Your task to perform on an android device: move a message to another label in the gmail app Image 0: 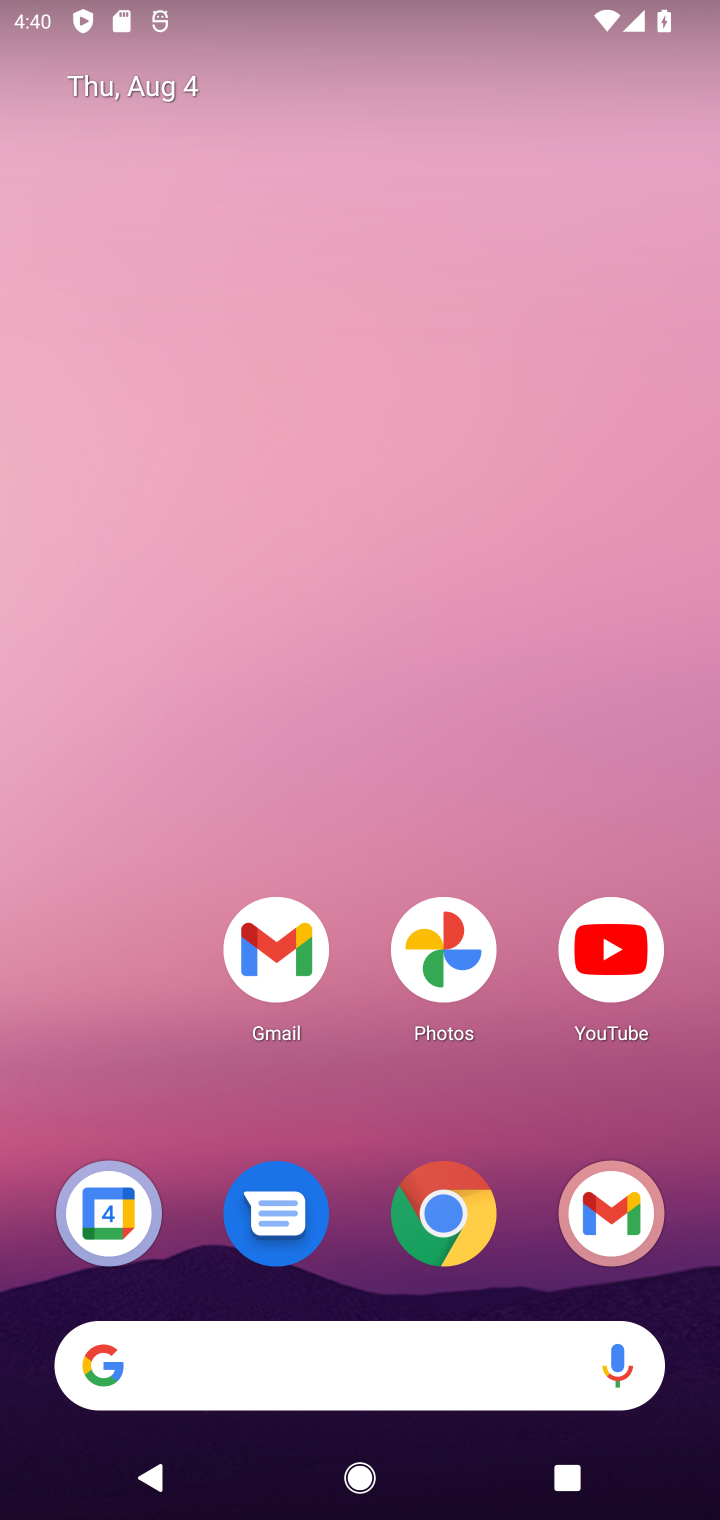
Step 0: drag from (170, 1118) to (179, 321)
Your task to perform on an android device: move a message to another label in the gmail app Image 1: 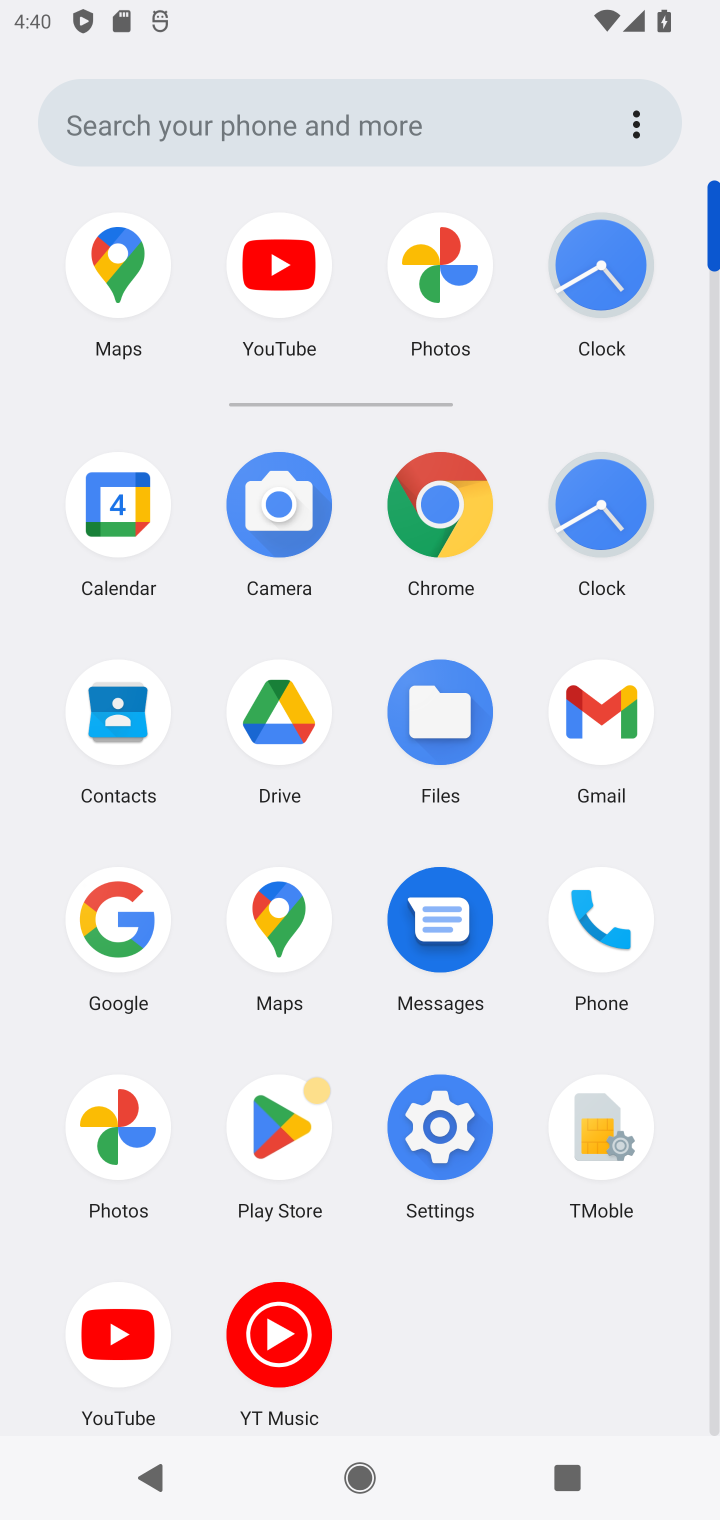
Step 1: click (613, 712)
Your task to perform on an android device: move a message to another label in the gmail app Image 2: 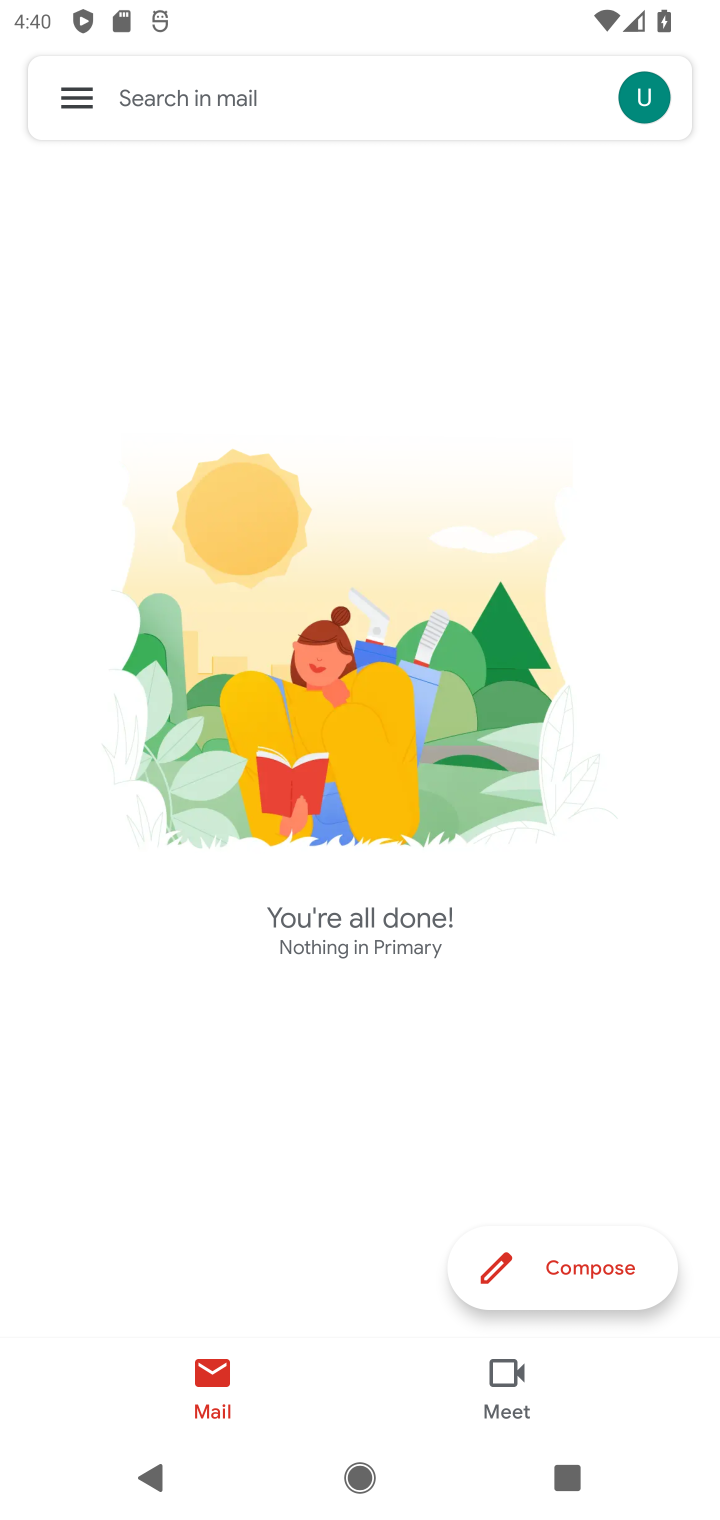
Step 2: click (84, 101)
Your task to perform on an android device: move a message to another label in the gmail app Image 3: 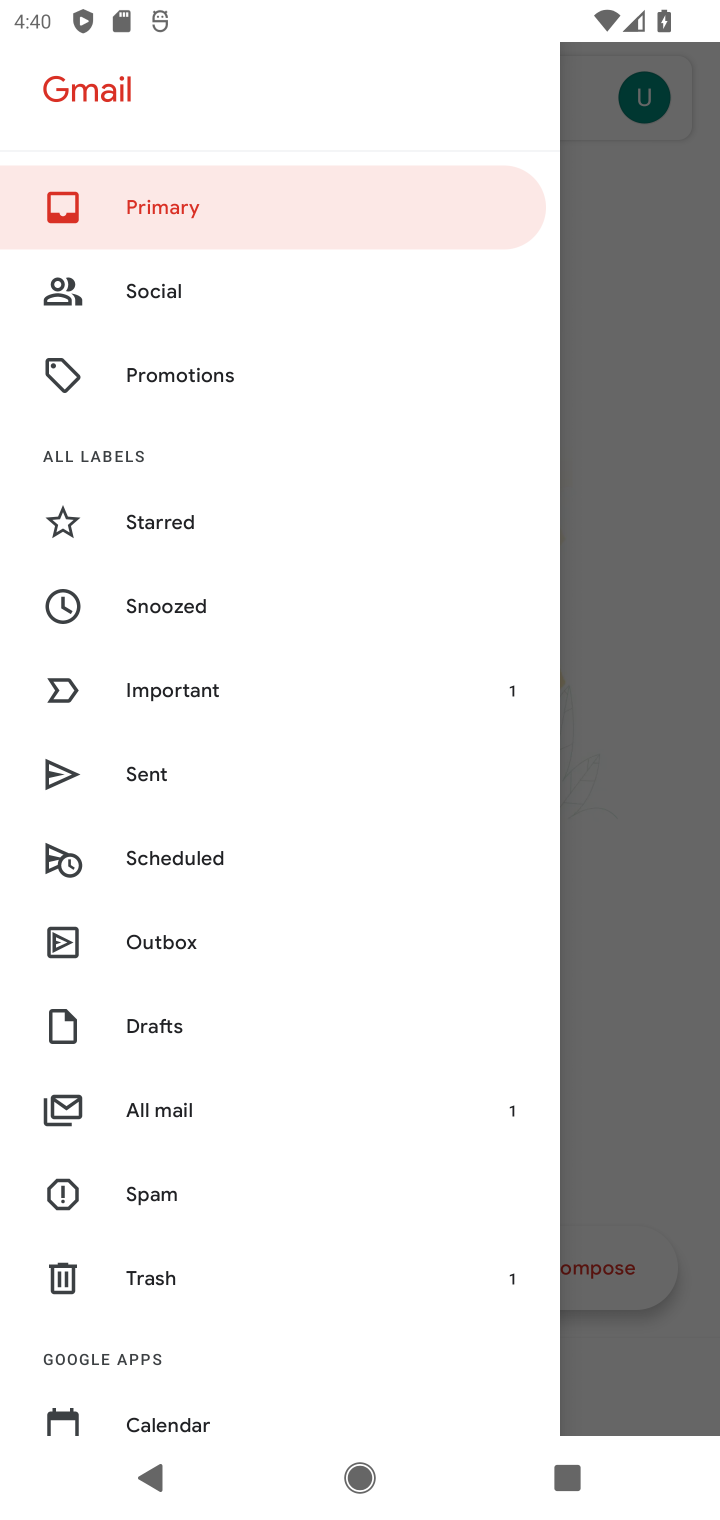
Step 3: click (250, 1104)
Your task to perform on an android device: move a message to another label in the gmail app Image 4: 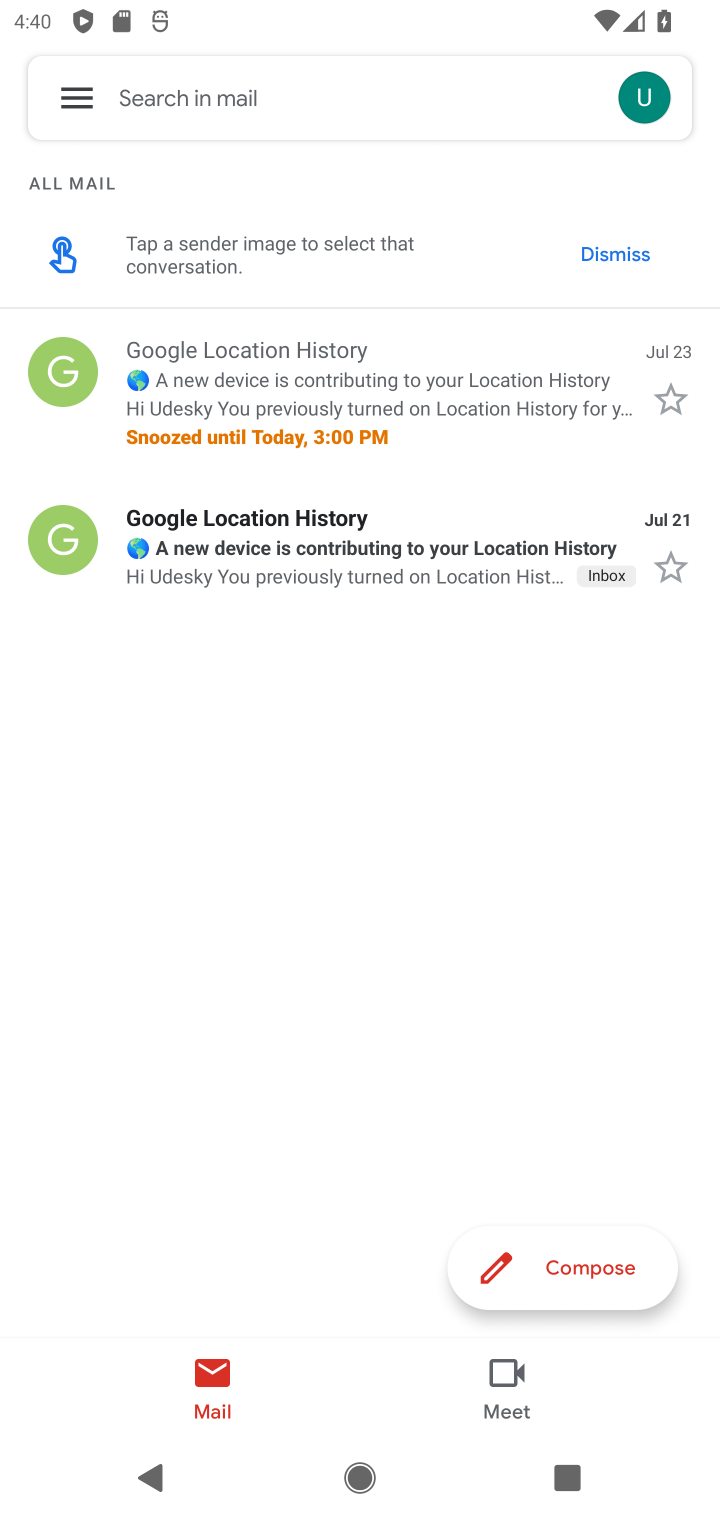
Step 4: click (393, 562)
Your task to perform on an android device: move a message to another label in the gmail app Image 5: 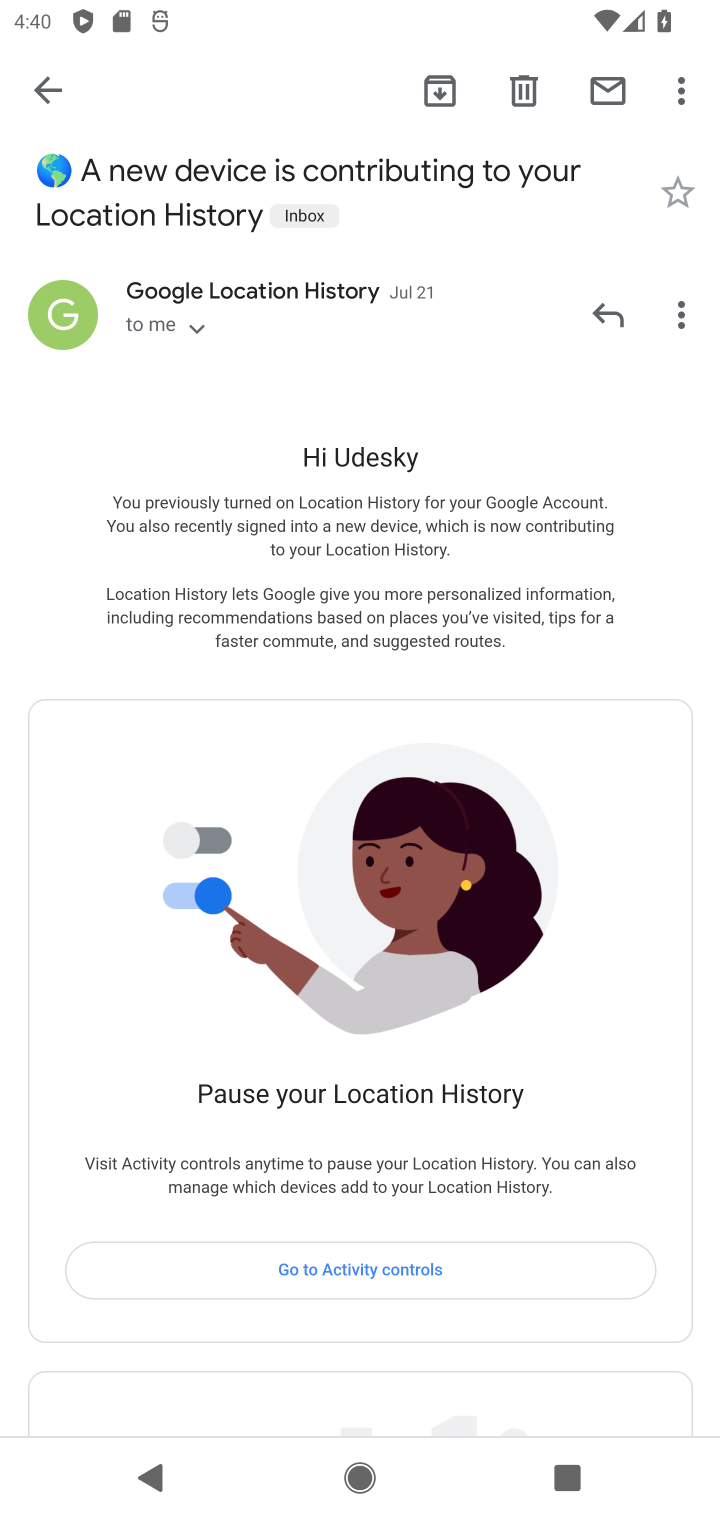
Step 5: click (684, 103)
Your task to perform on an android device: move a message to another label in the gmail app Image 6: 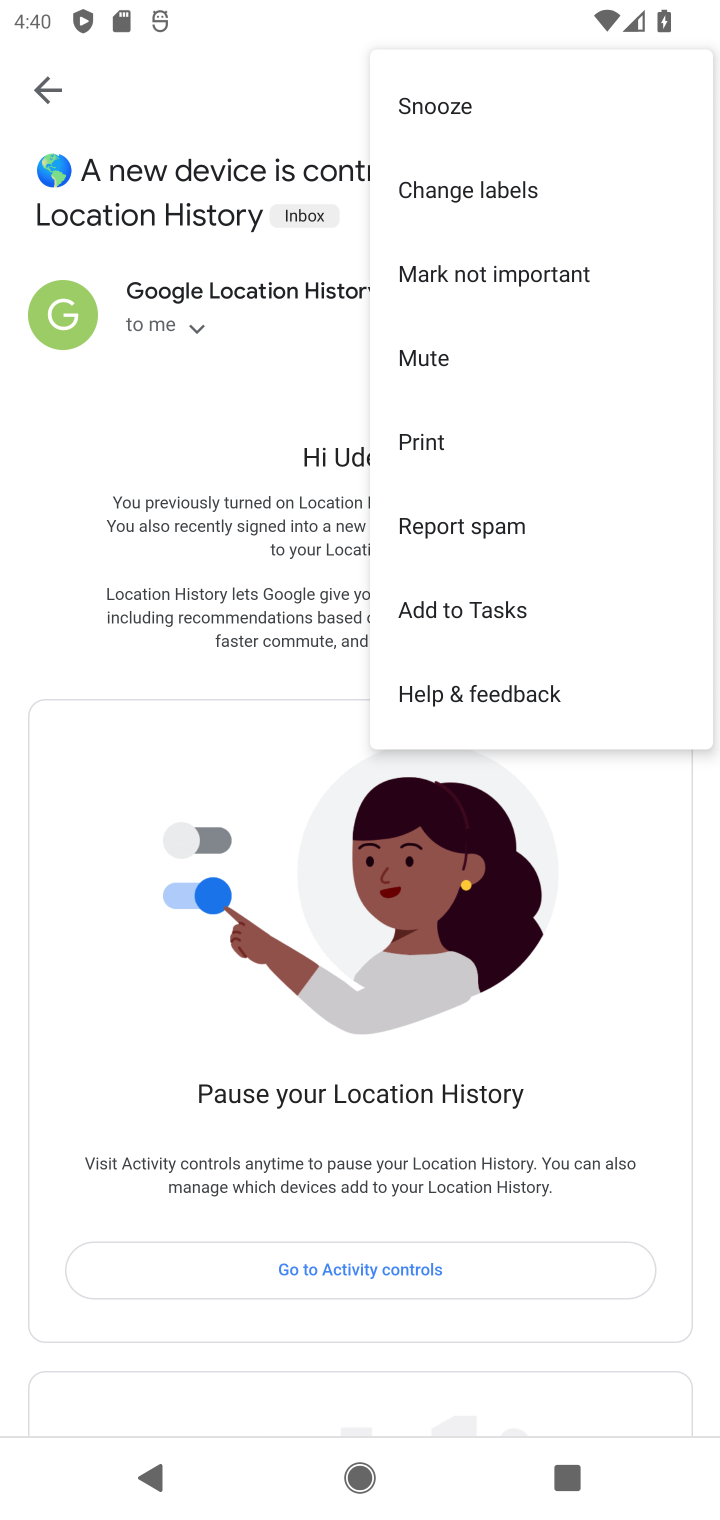
Step 6: press back button
Your task to perform on an android device: move a message to another label in the gmail app Image 7: 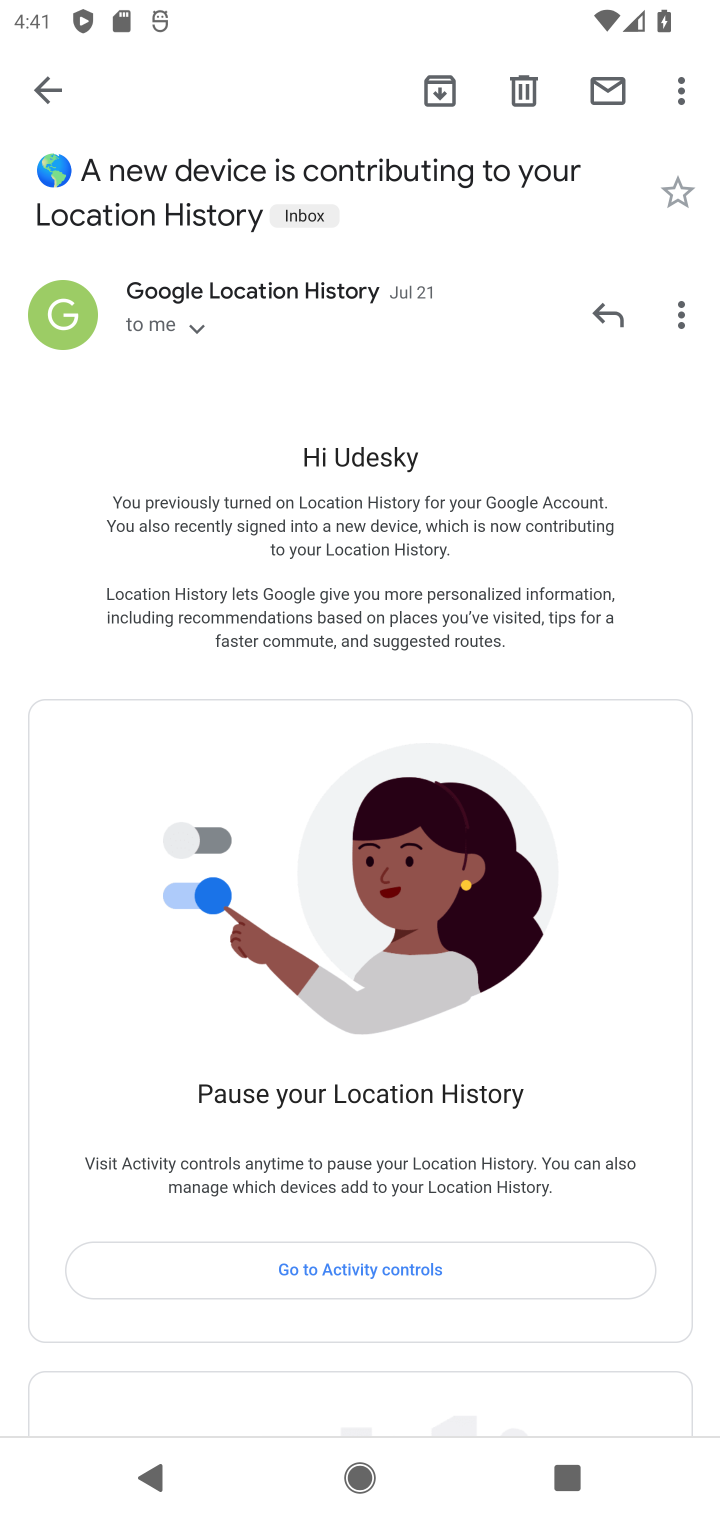
Step 7: press back button
Your task to perform on an android device: move a message to another label in the gmail app Image 8: 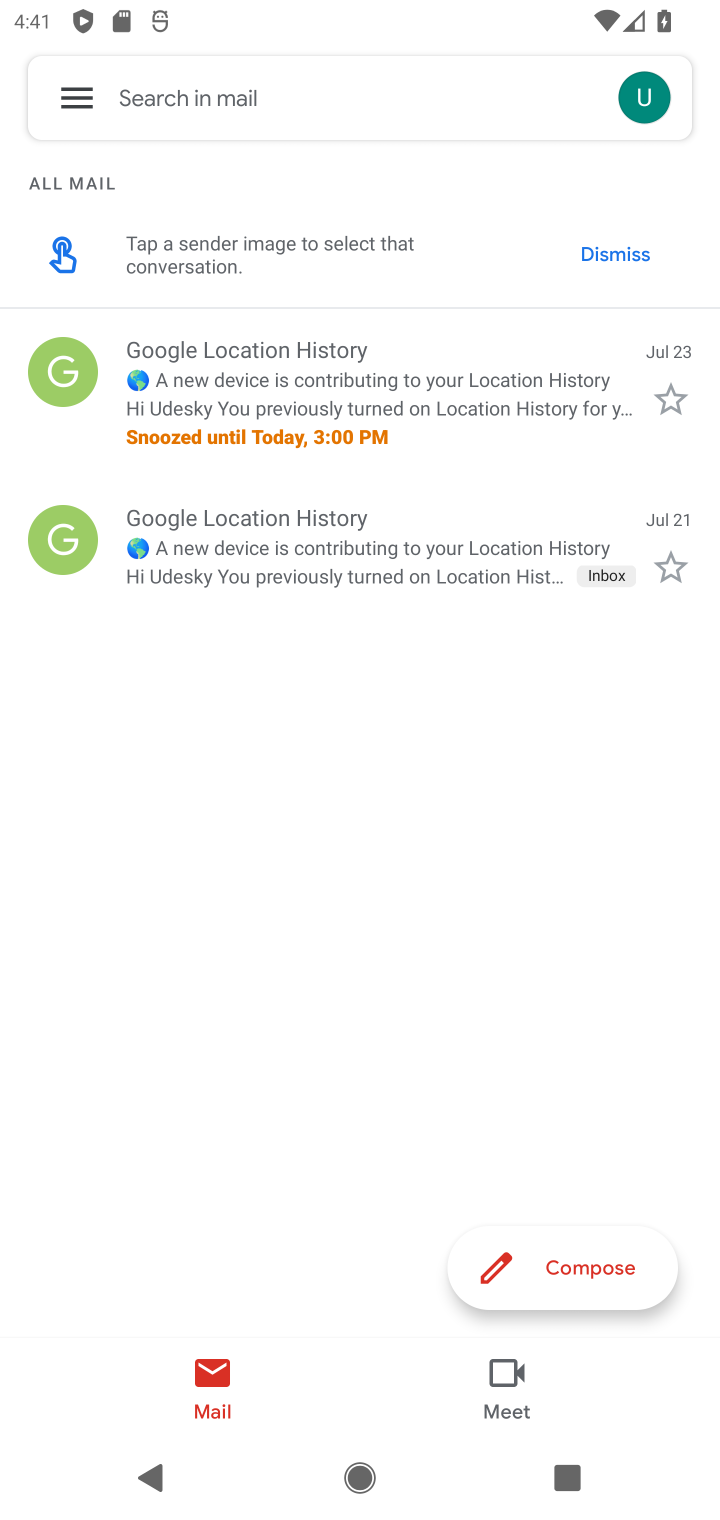
Step 8: click (404, 401)
Your task to perform on an android device: move a message to another label in the gmail app Image 9: 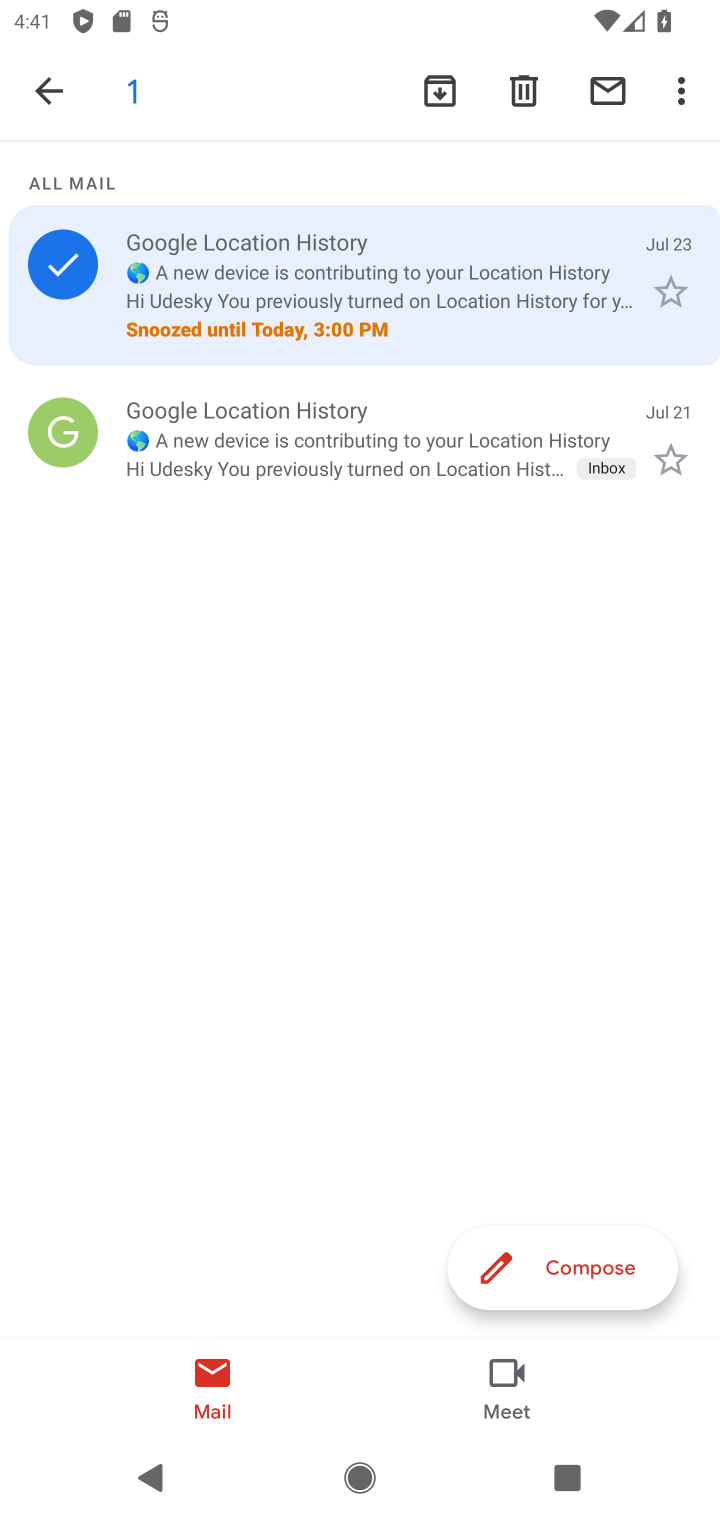
Step 9: press back button
Your task to perform on an android device: move a message to another label in the gmail app Image 10: 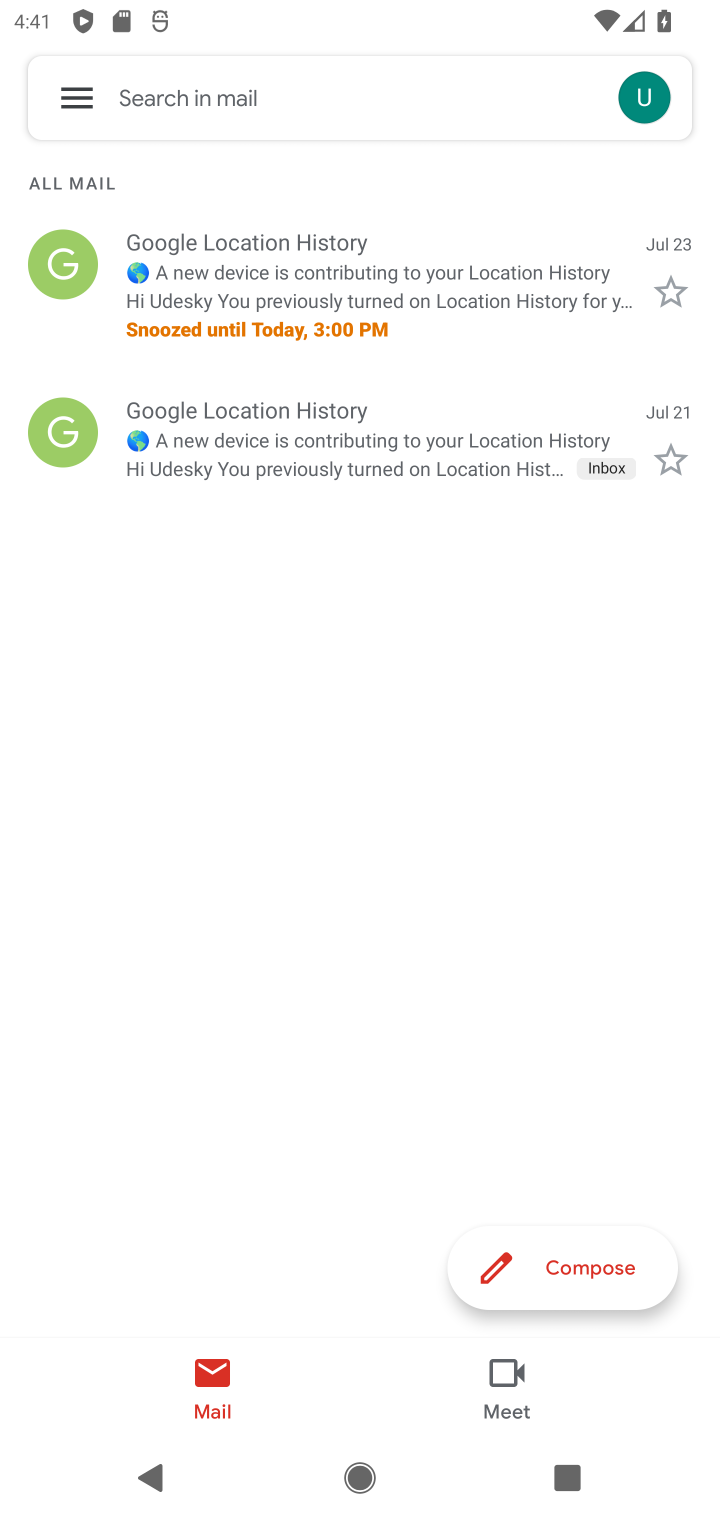
Step 10: click (367, 265)
Your task to perform on an android device: move a message to another label in the gmail app Image 11: 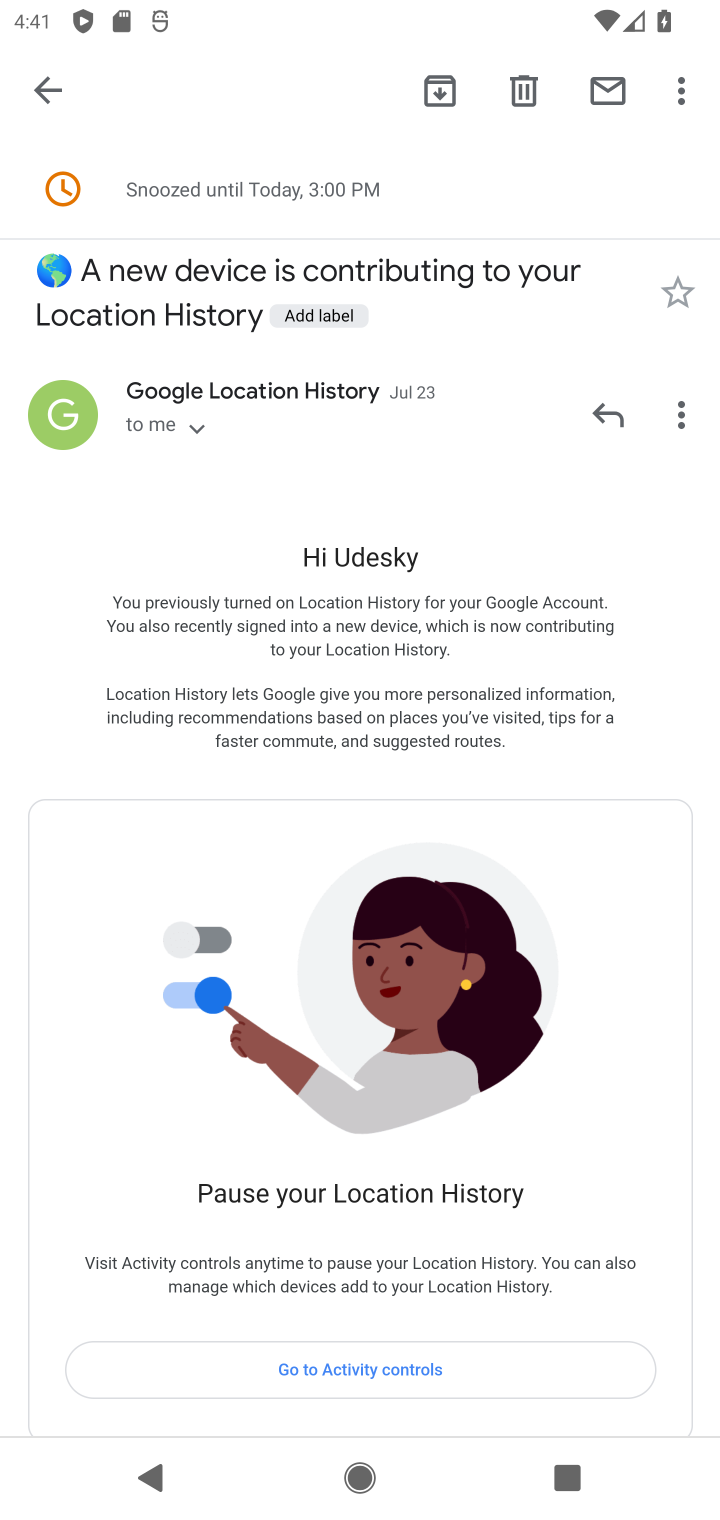
Step 11: click (677, 84)
Your task to perform on an android device: move a message to another label in the gmail app Image 12: 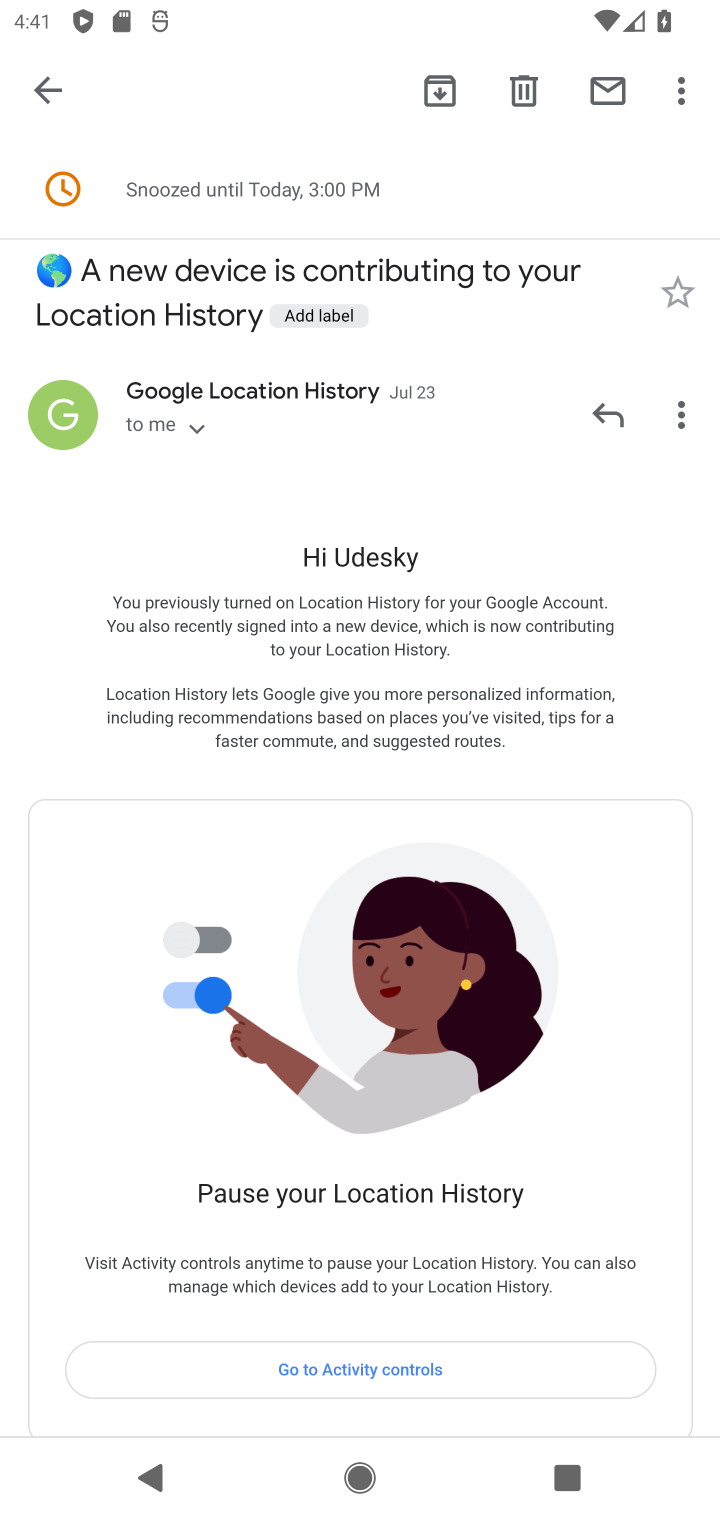
Step 12: click (683, 95)
Your task to perform on an android device: move a message to another label in the gmail app Image 13: 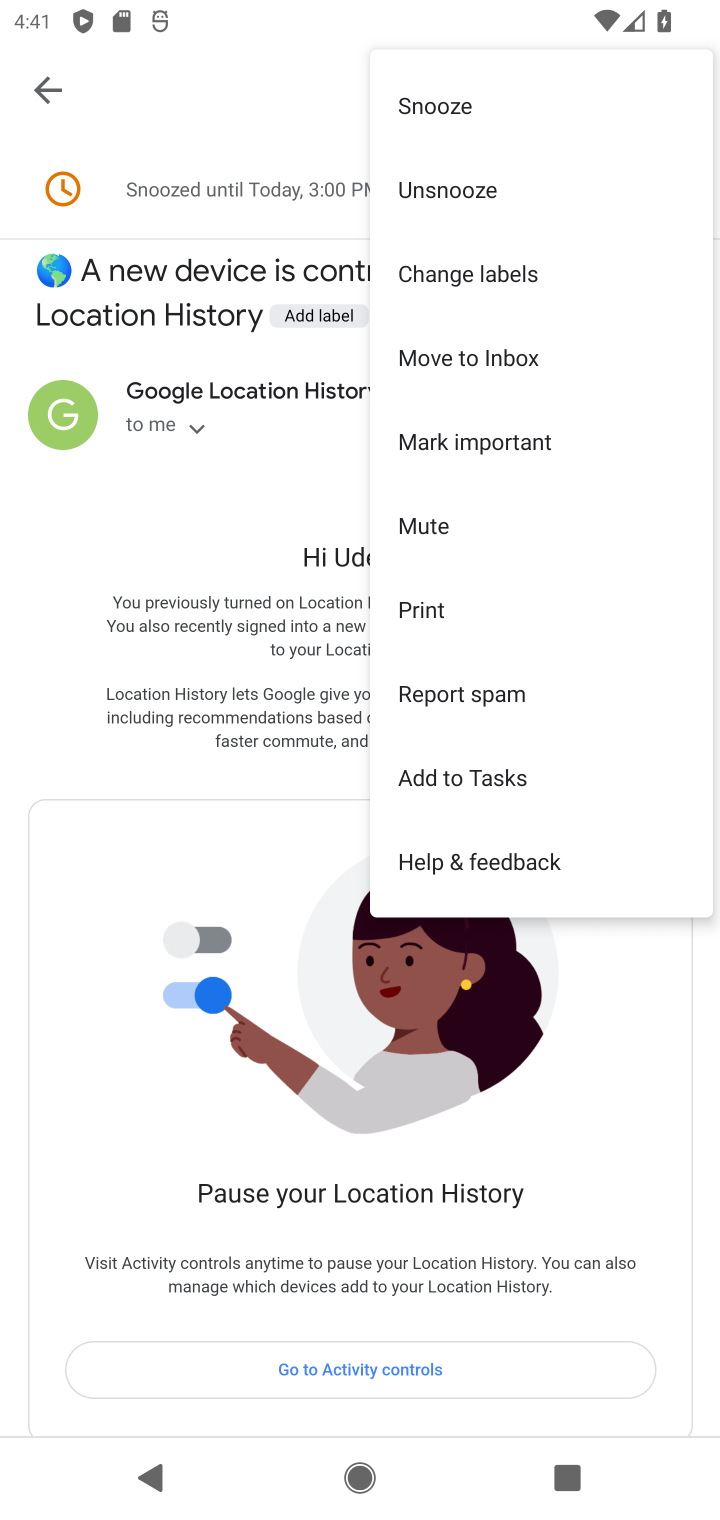
Step 13: click (483, 351)
Your task to perform on an android device: move a message to another label in the gmail app Image 14: 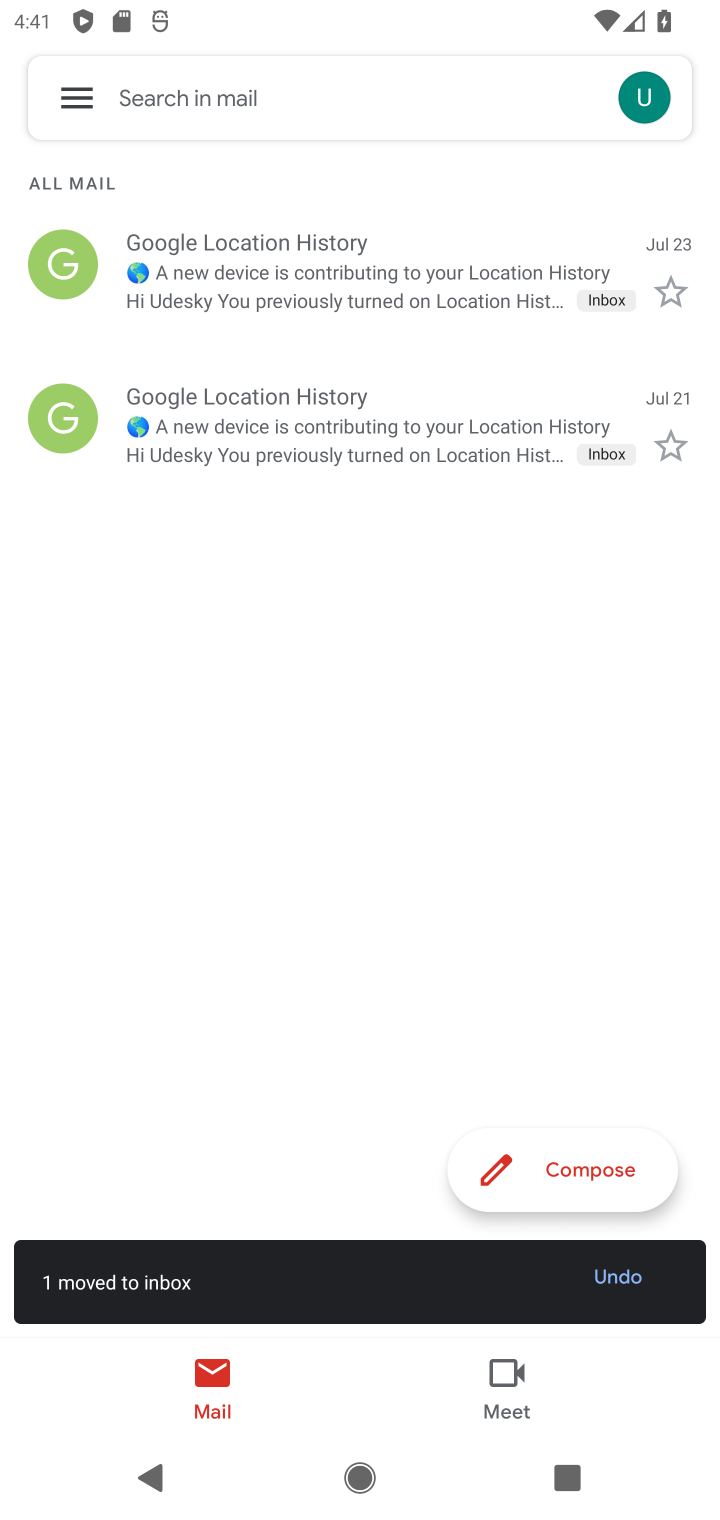
Step 14: task complete